Your task to perform on an android device: See recent photos Image 0: 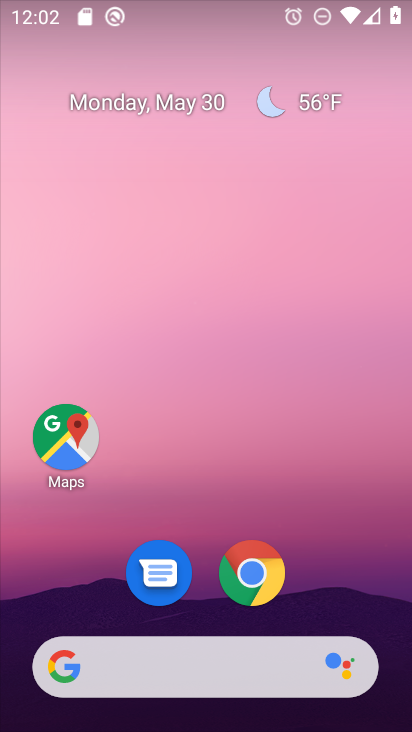
Step 0: drag from (300, 614) to (315, 8)
Your task to perform on an android device: See recent photos Image 1: 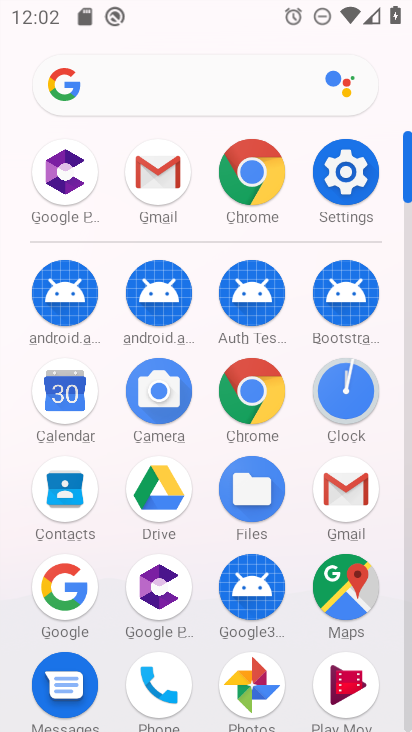
Step 1: click (259, 682)
Your task to perform on an android device: See recent photos Image 2: 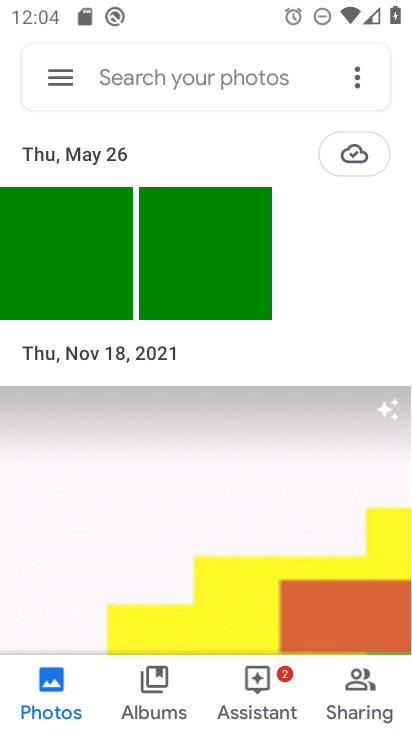
Step 2: press home button
Your task to perform on an android device: See recent photos Image 3: 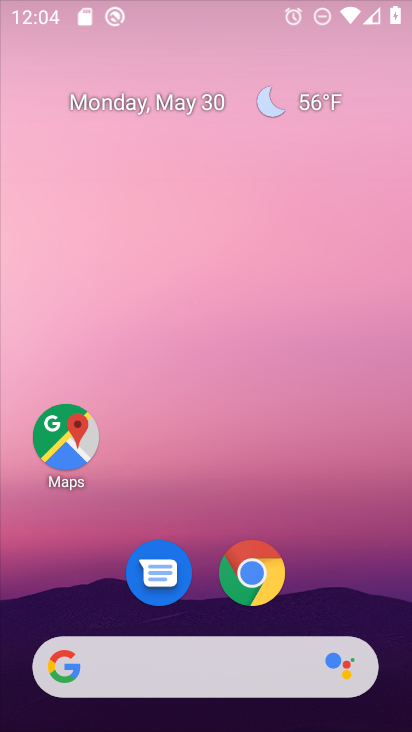
Step 3: drag from (253, 533) to (365, 9)
Your task to perform on an android device: See recent photos Image 4: 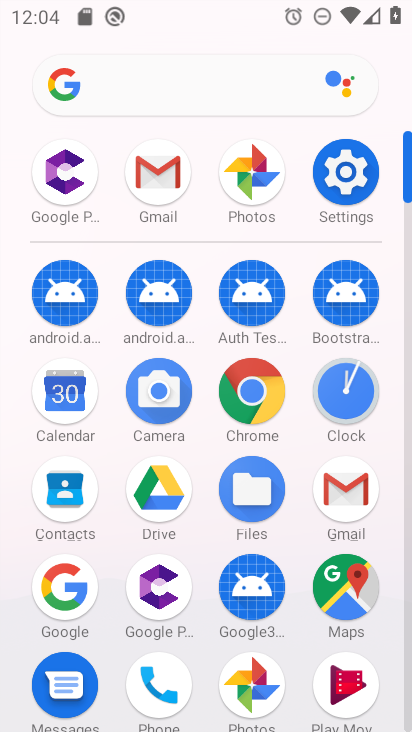
Step 4: click (251, 685)
Your task to perform on an android device: See recent photos Image 5: 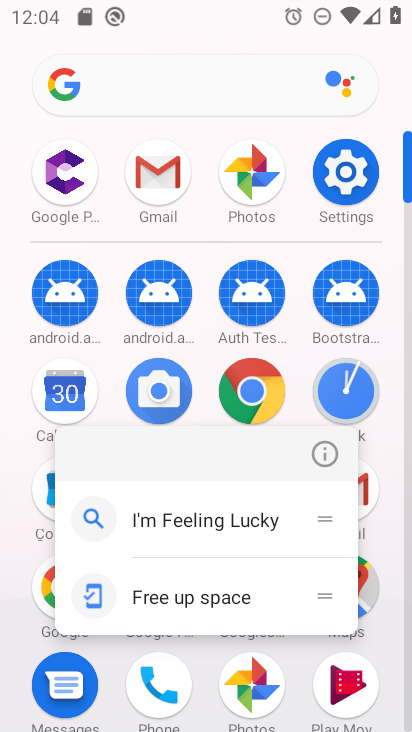
Step 5: click (251, 685)
Your task to perform on an android device: See recent photos Image 6: 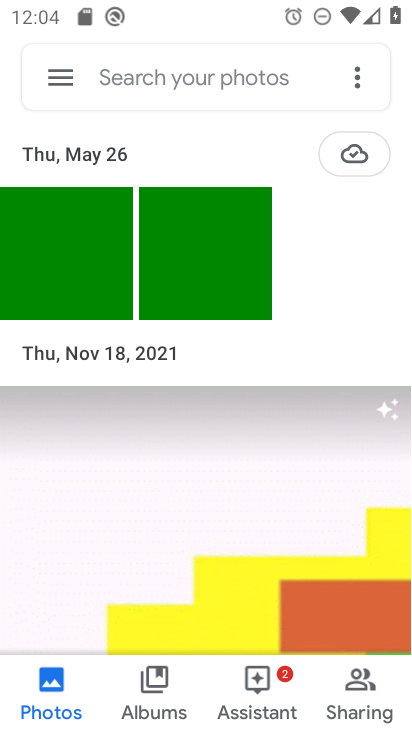
Step 6: task complete